Your task to perform on an android device: Search for Mexican restaurants on Maps Image 0: 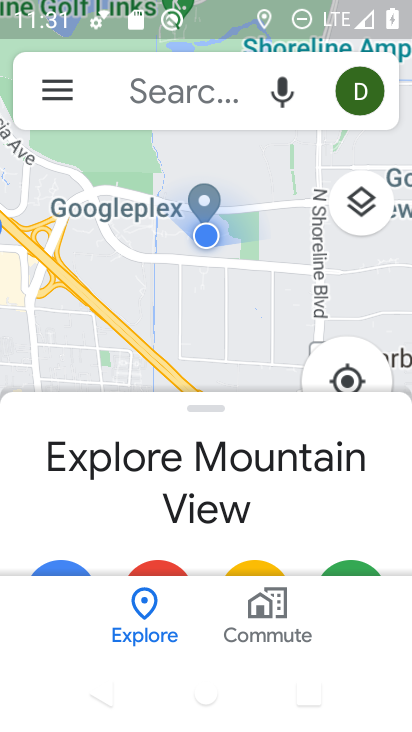
Step 0: click (151, 81)
Your task to perform on an android device: Search for Mexican restaurants on Maps Image 1: 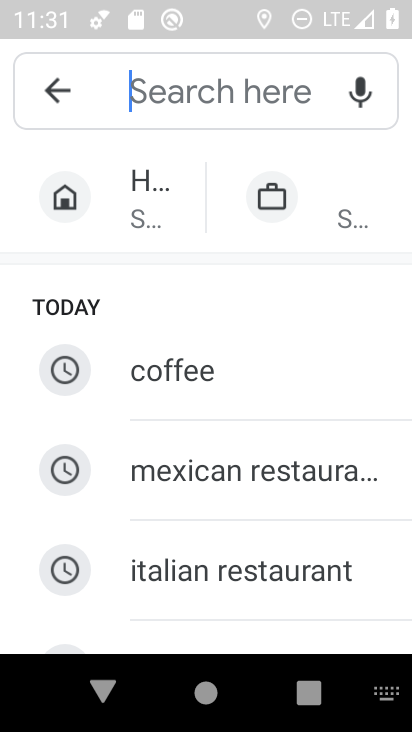
Step 1: click (205, 474)
Your task to perform on an android device: Search for Mexican restaurants on Maps Image 2: 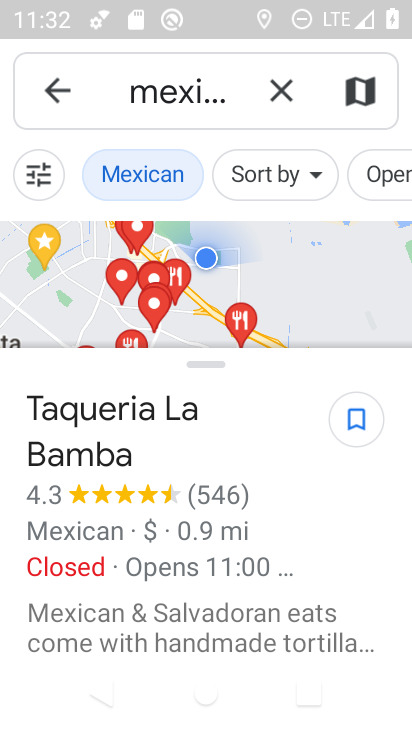
Step 2: task complete